Your task to perform on an android device: Open Google Chrome Image 0: 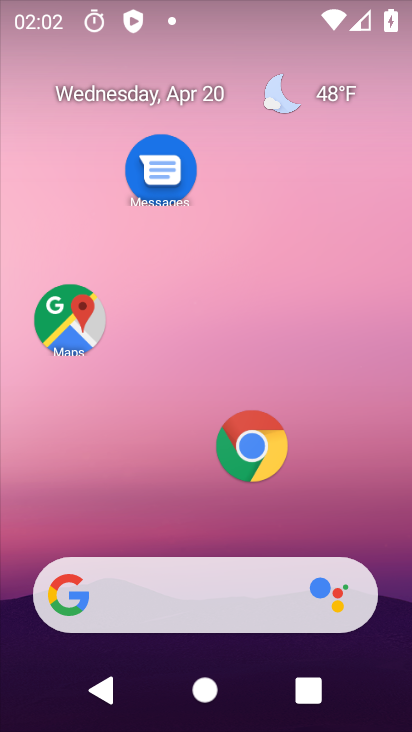
Step 0: click (256, 450)
Your task to perform on an android device: Open Google Chrome Image 1: 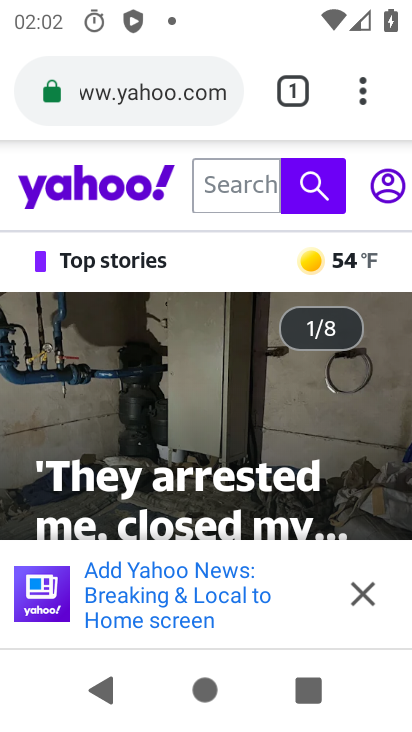
Step 1: click (358, 598)
Your task to perform on an android device: Open Google Chrome Image 2: 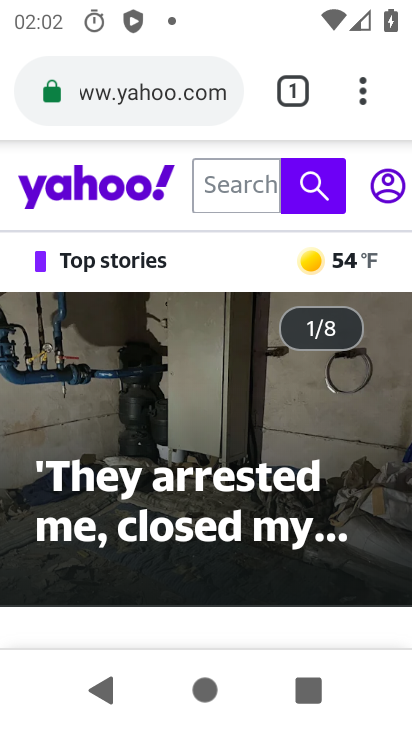
Step 2: task complete